Your task to perform on an android device: manage bookmarks in the chrome app Image 0: 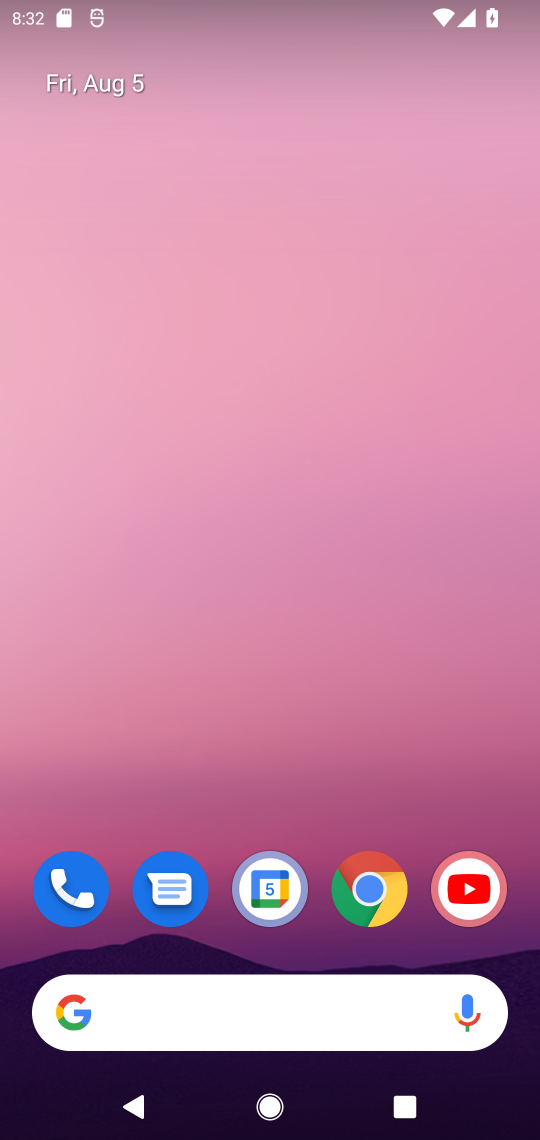
Step 0: drag from (169, 982) to (190, 123)
Your task to perform on an android device: manage bookmarks in the chrome app Image 1: 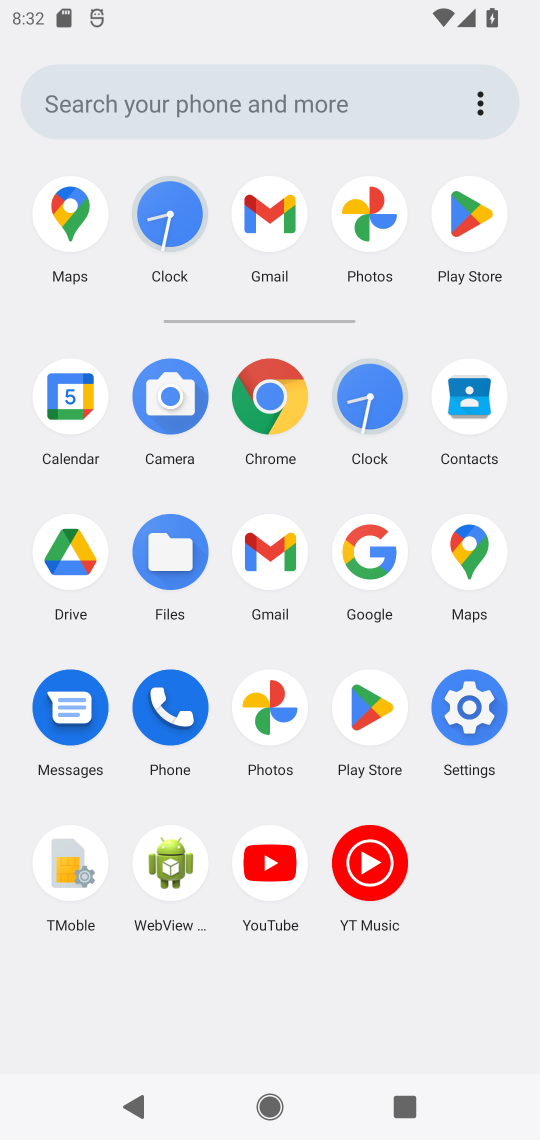
Step 1: click (280, 395)
Your task to perform on an android device: manage bookmarks in the chrome app Image 2: 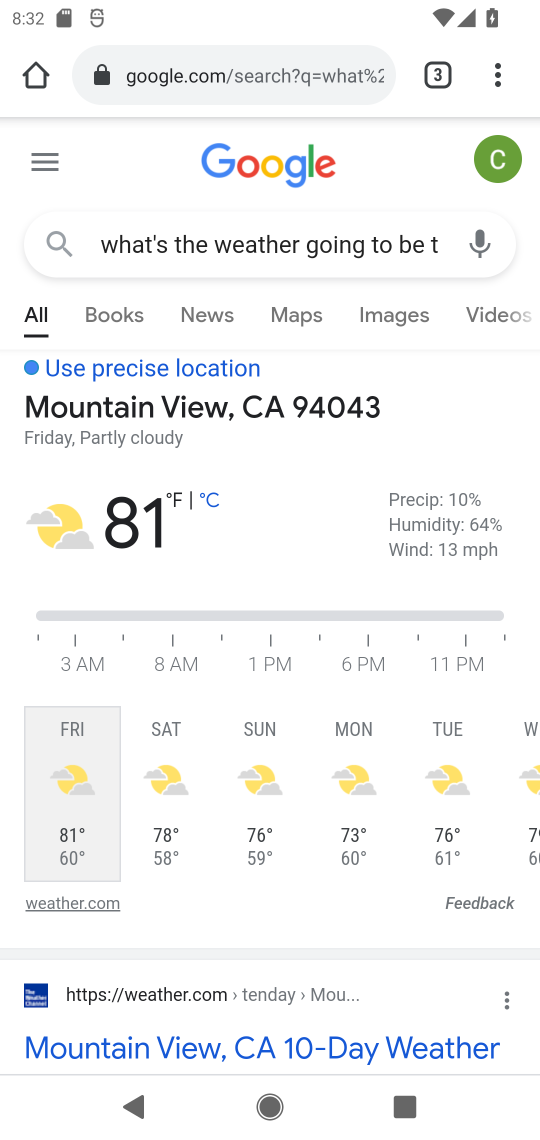
Step 2: click (514, 71)
Your task to perform on an android device: manage bookmarks in the chrome app Image 3: 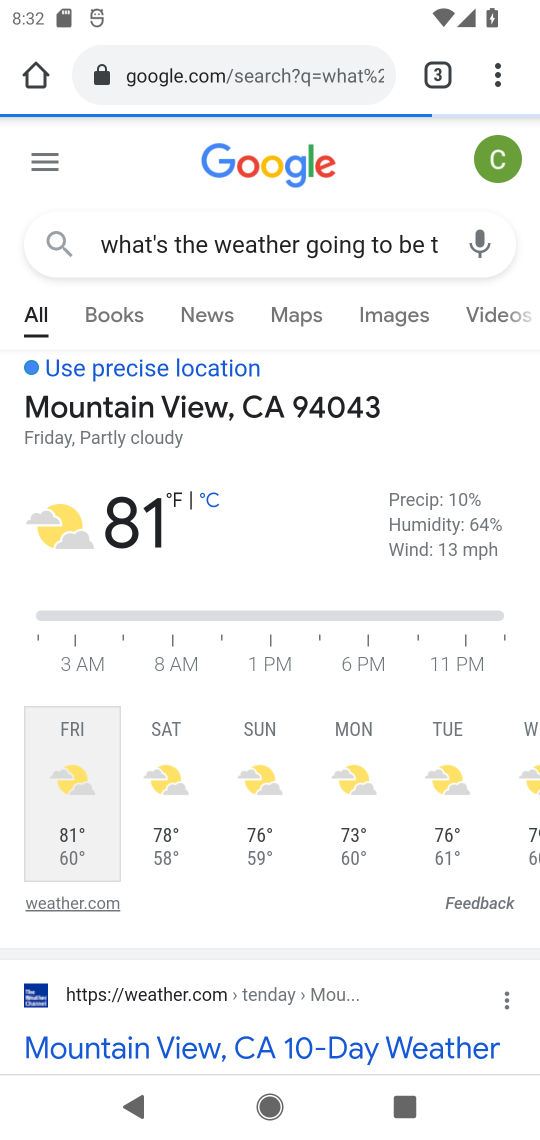
Step 3: click (503, 71)
Your task to perform on an android device: manage bookmarks in the chrome app Image 4: 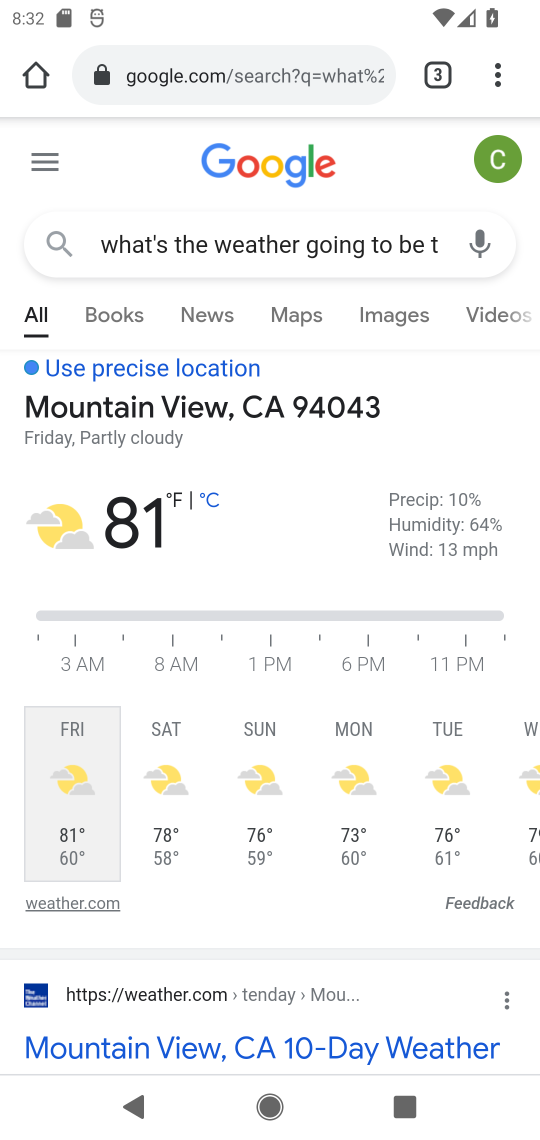
Step 4: click (502, 73)
Your task to perform on an android device: manage bookmarks in the chrome app Image 5: 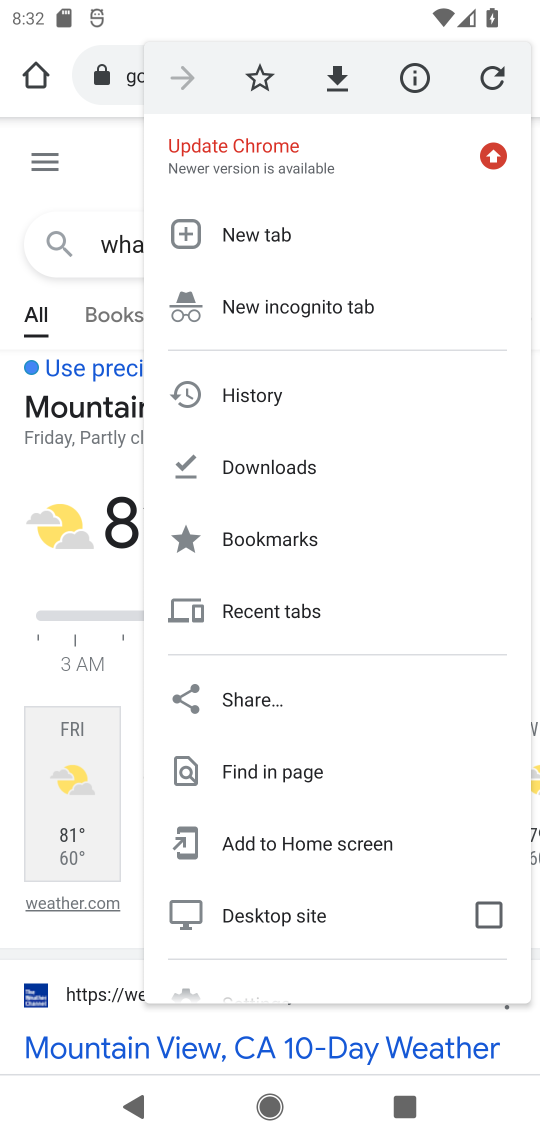
Step 5: click (263, 531)
Your task to perform on an android device: manage bookmarks in the chrome app Image 6: 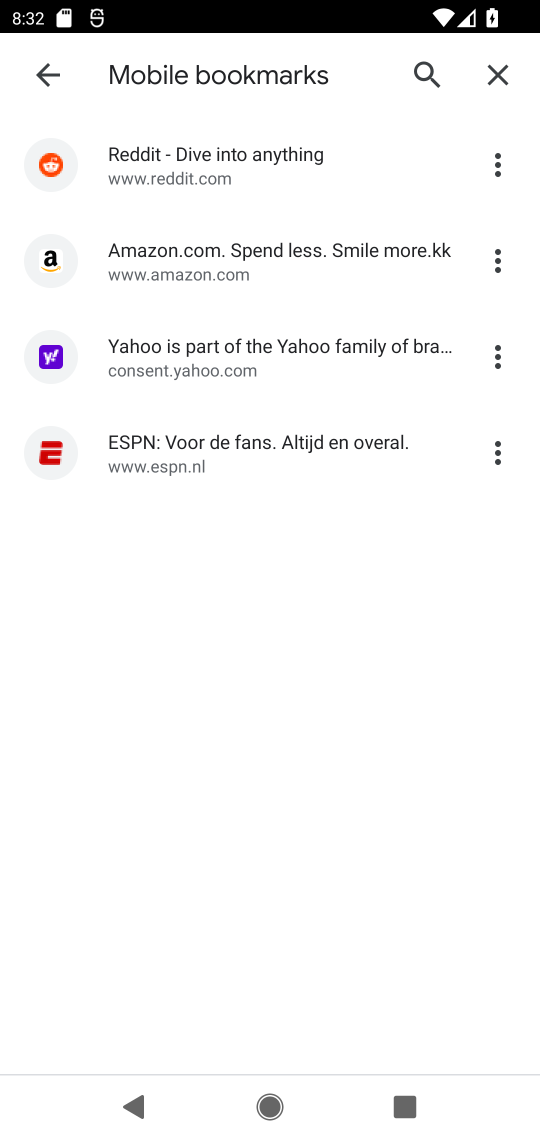
Step 6: click (155, 156)
Your task to perform on an android device: manage bookmarks in the chrome app Image 7: 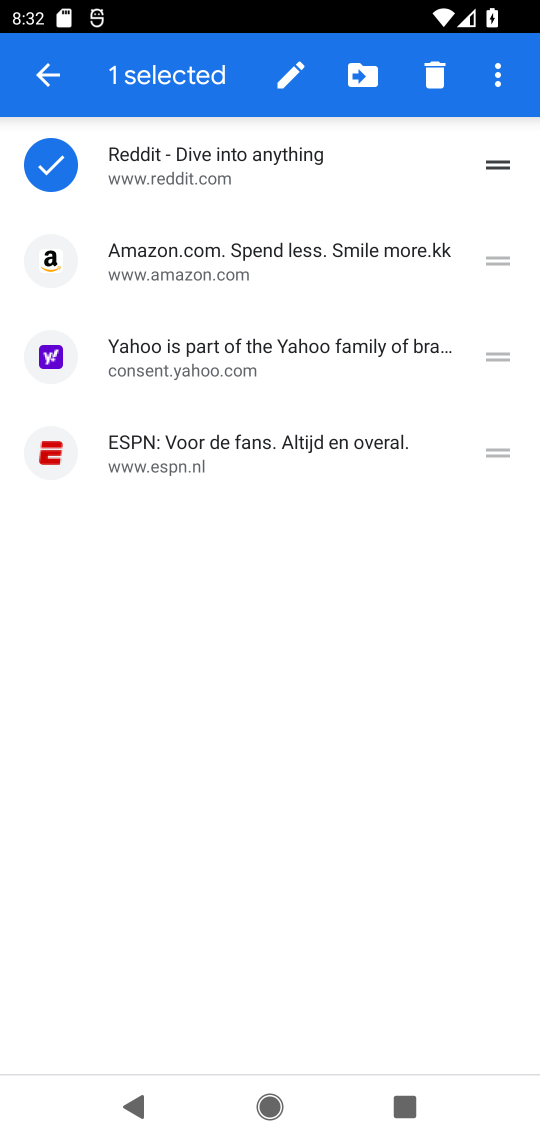
Step 7: click (142, 275)
Your task to perform on an android device: manage bookmarks in the chrome app Image 8: 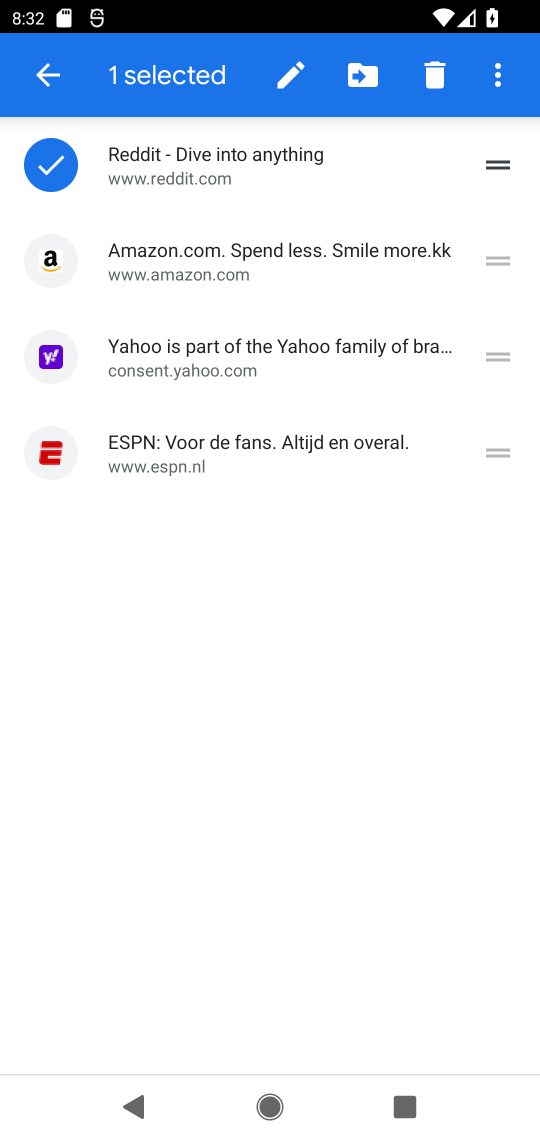
Step 8: click (148, 372)
Your task to perform on an android device: manage bookmarks in the chrome app Image 9: 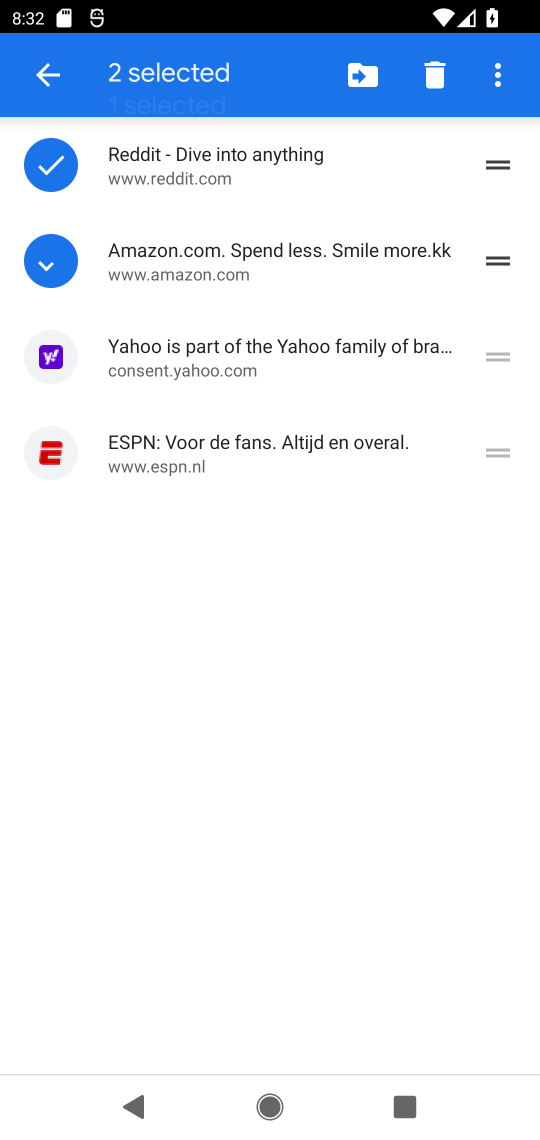
Step 9: click (142, 415)
Your task to perform on an android device: manage bookmarks in the chrome app Image 10: 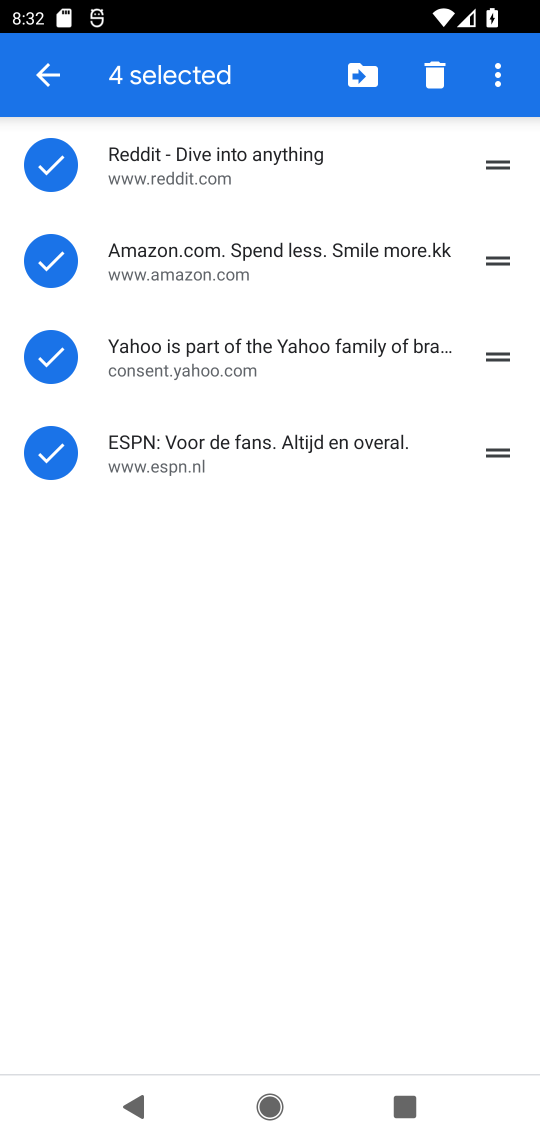
Step 10: click (362, 79)
Your task to perform on an android device: manage bookmarks in the chrome app Image 11: 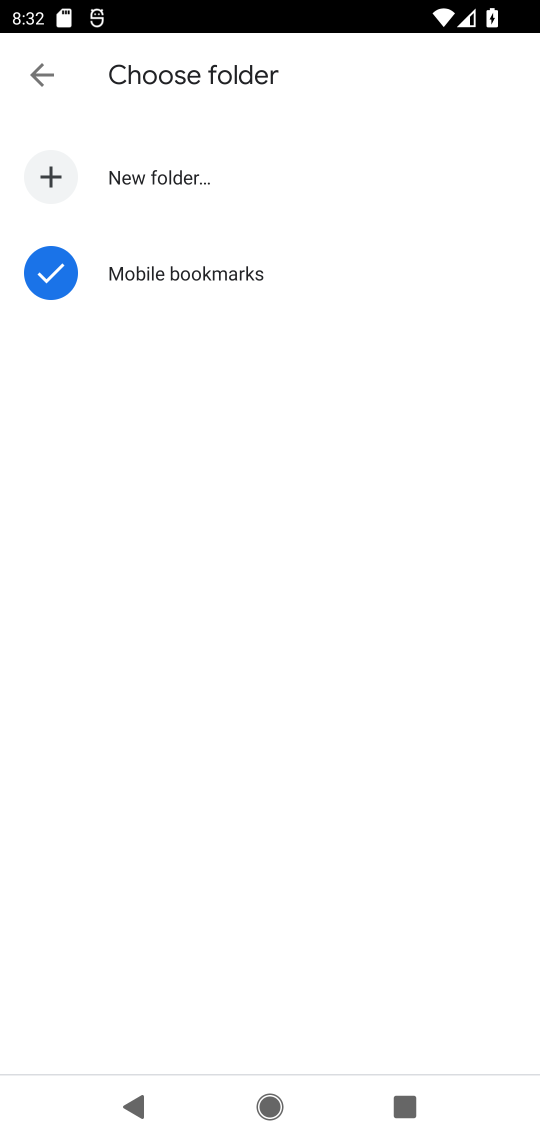
Step 11: click (172, 183)
Your task to perform on an android device: manage bookmarks in the chrome app Image 12: 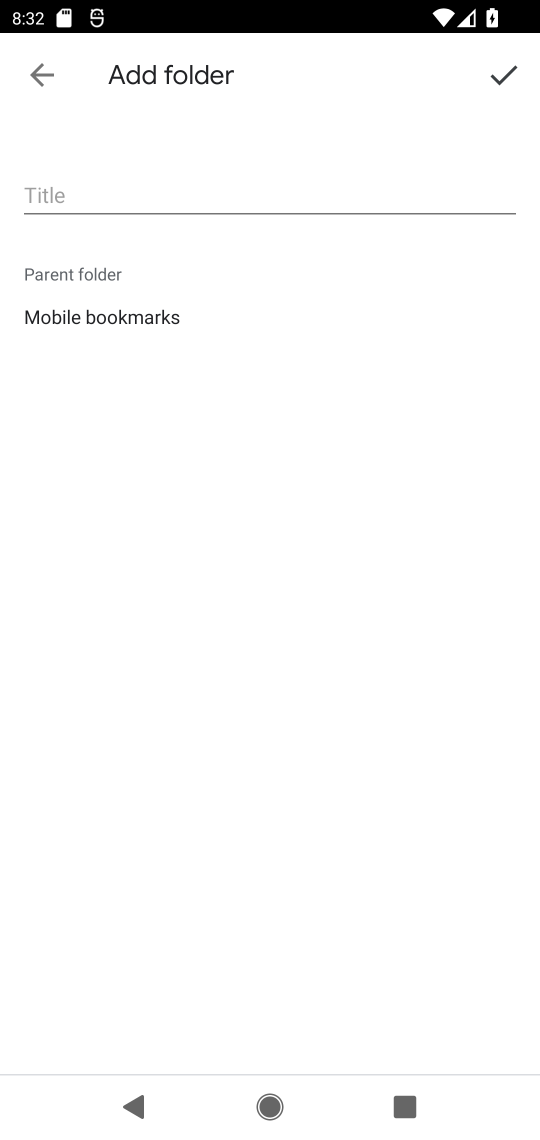
Step 12: click (93, 173)
Your task to perform on an android device: manage bookmarks in the chrome app Image 13: 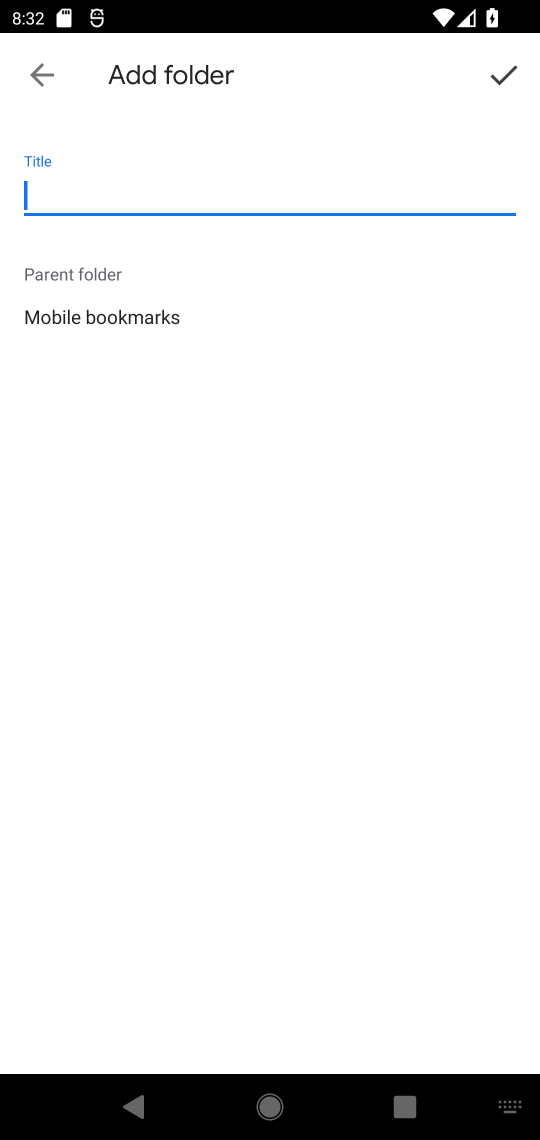
Step 13: type "hgghgghhghh "
Your task to perform on an android device: manage bookmarks in the chrome app Image 14: 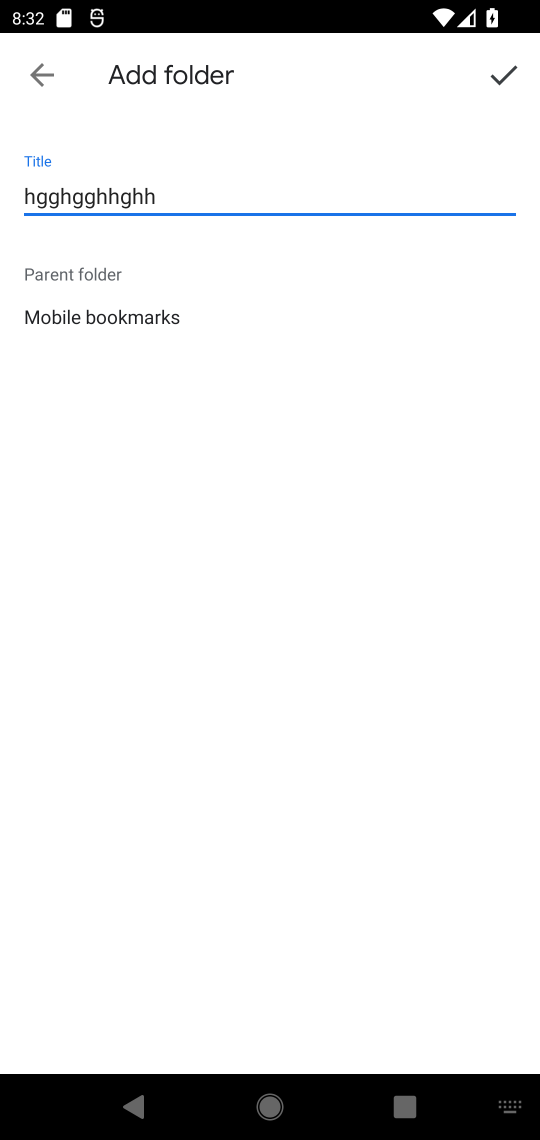
Step 14: click (519, 61)
Your task to perform on an android device: manage bookmarks in the chrome app Image 15: 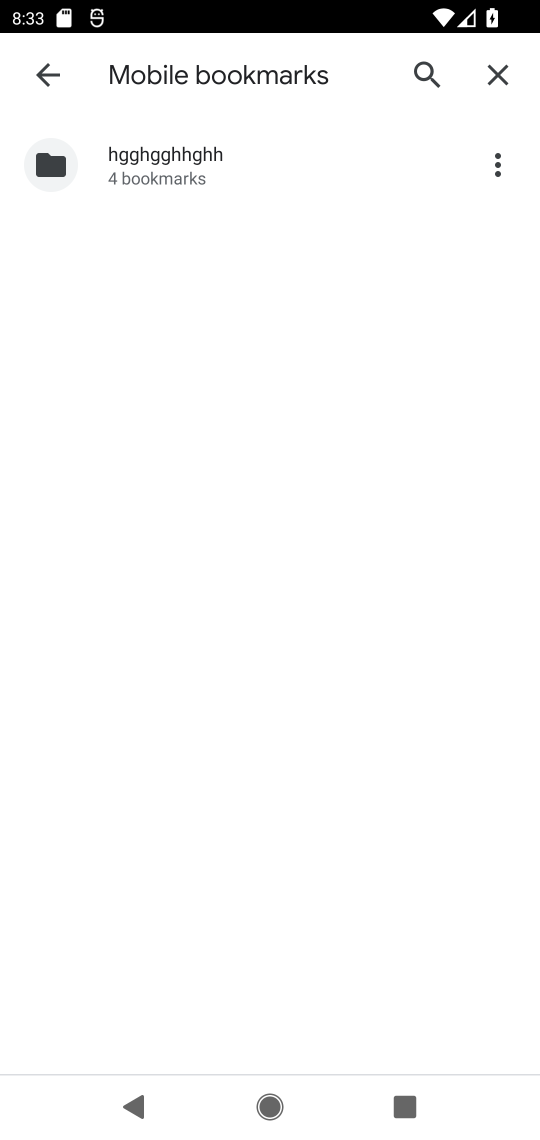
Step 15: task complete